Your task to perform on an android device: turn on priority inbox in the gmail app Image 0: 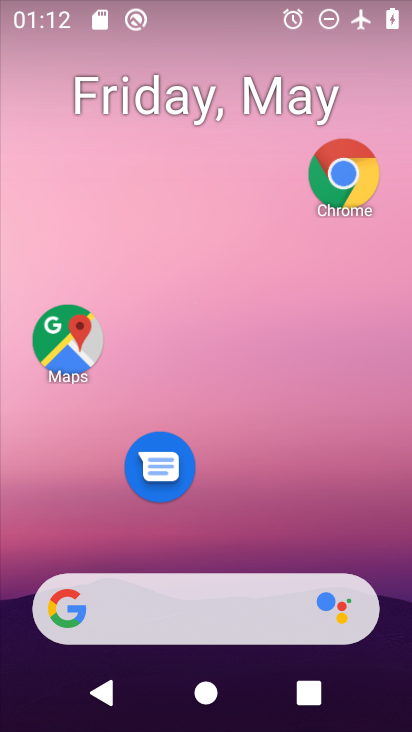
Step 0: drag from (251, 540) to (287, 266)
Your task to perform on an android device: turn on priority inbox in the gmail app Image 1: 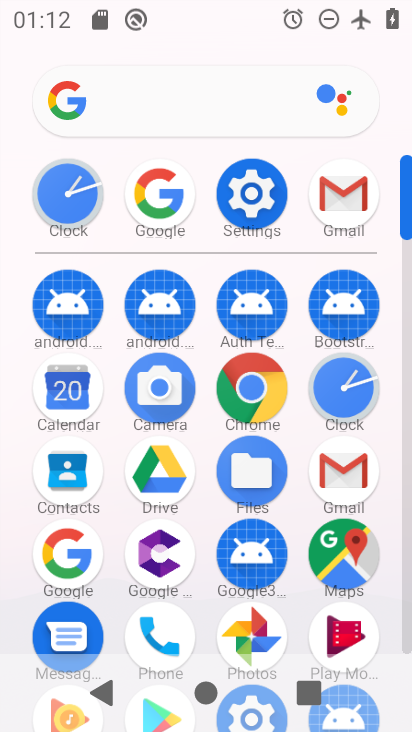
Step 1: click (337, 464)
Your task to perform on an android device: turn on priority inbox in the gmail app Image 2: 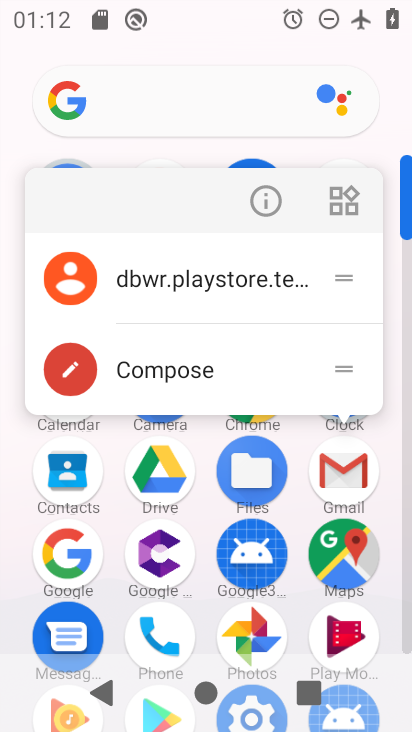
Step 2: click (337, 464)
Your task to perform on an android device: turn on priority inbox in the gmail app Image 3: 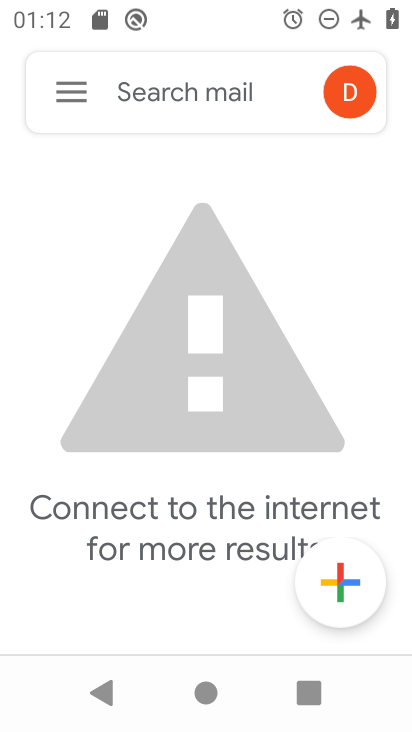
Step 3: click (65, 77)
Your task to perform on an android device: turn on priority inbox in the gmail app Image 4: 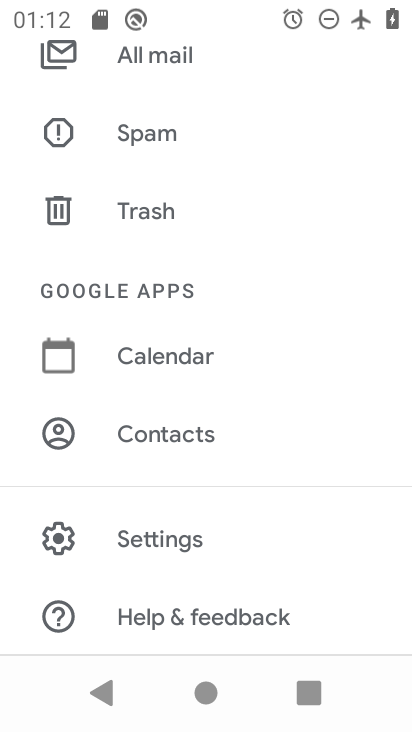
Step 4: click (166, 523)
Your task to perform on an android device: turn on priority inbox in the gmail app Image 5: 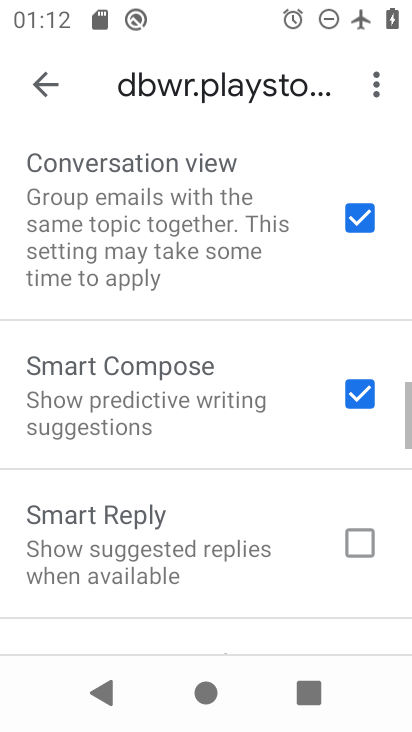
Step 5: drag from (145, 168) to (130, 518)
Your task to perform on an android device: turn on priority inbox in the gmail app Image 6: 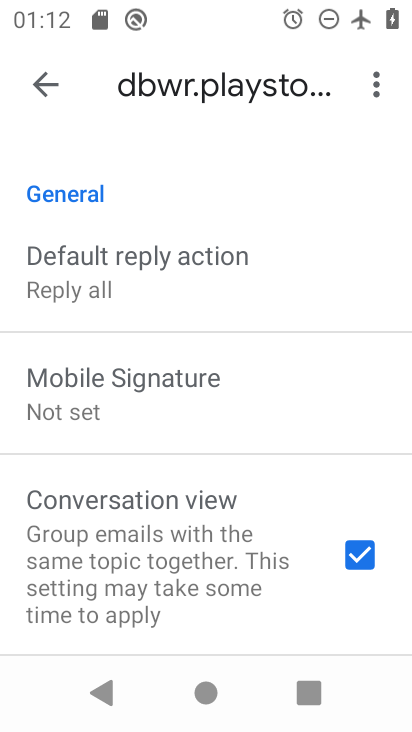
Step 6: click (203, 212)
Your task to perform on an android device: turn on priority inbox in the gmail app Image 7: 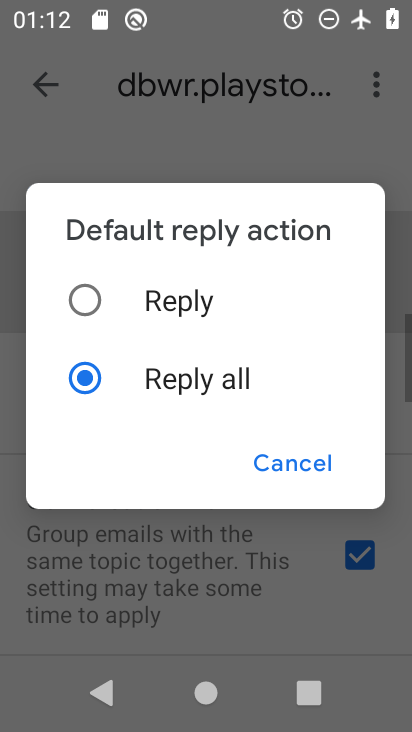
Step 7: drag from (203, 232) to (183, 432)
Your task to perform on an android device: turn on priority inbox in the gmail app Image 8: 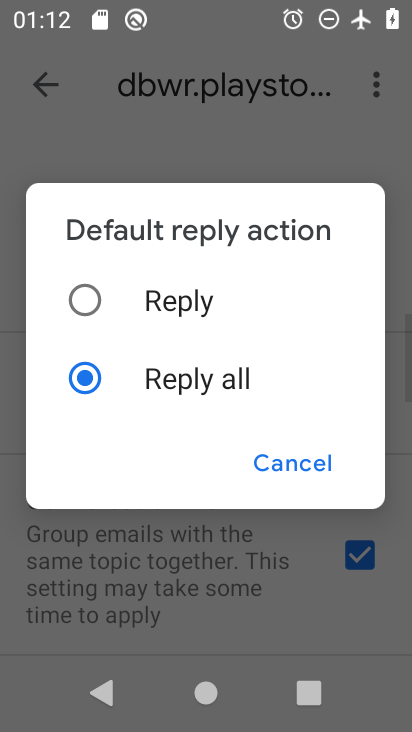
Step 8: click (270, 455)
Your task to perform on an android device: turn on priority inbox in the gmail app Image 9: 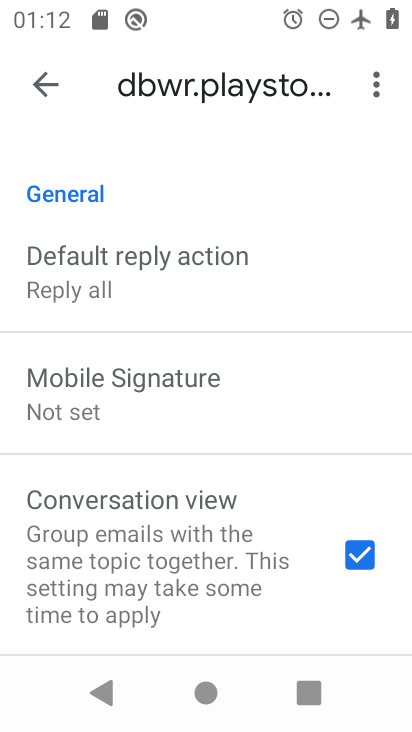
Step 9: drag from (226, 119) to (165, 486)
Your task to perform on an android device: turn on priority inbox in the gmail app Image 10: 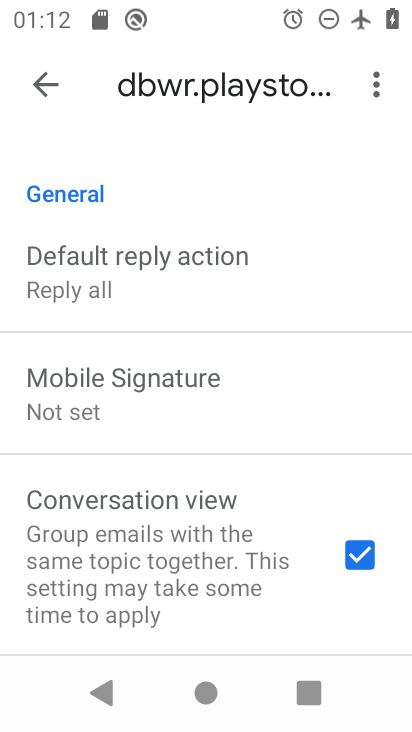
Step 10: drag from (131, 264) to (128, 456)
Your task to perform on an android device: turn on priority inbox in the gmail app Image 11: 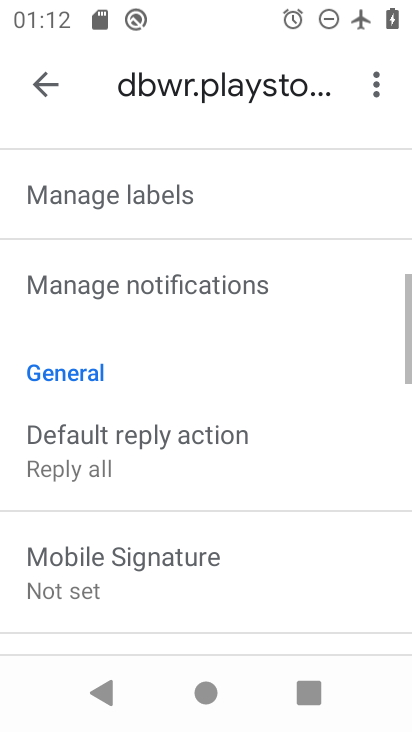
Step 11: drag from (135, 264) to (148, 421)
Your task to perform on an android device: turn on priority inbox in the gmail app Image 12: 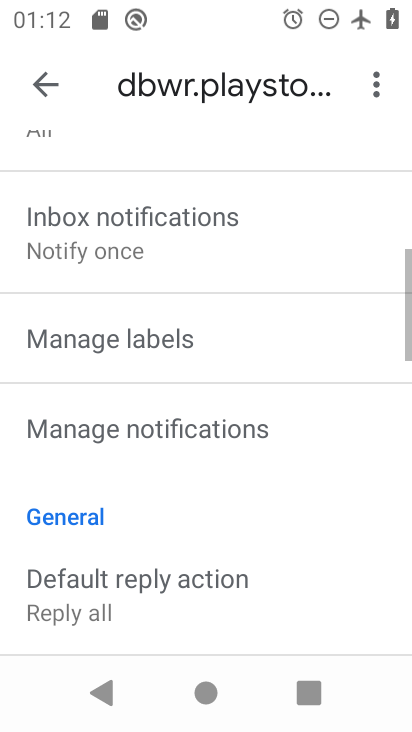
Step 12: drag from (135, 263) to (134, 428)
Your task to perform on an android device: turn on priority inbox in the gmail app Image 13: 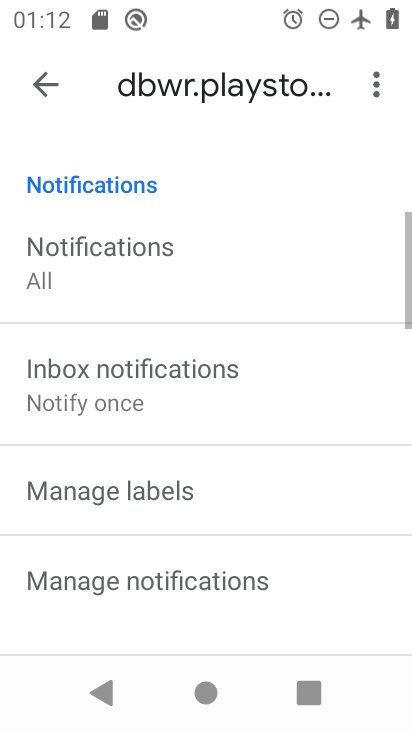
Step 13: drag from (142, 270) to (155, 444)
Your task to perform on an android device: turn on priority inbox in the gmail app Image 14: 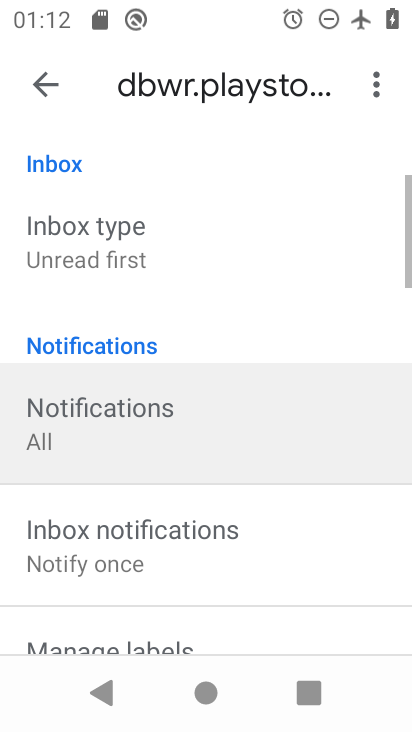
Step 14: drag from (168, 218) to (153, 379)
Your task to perform on an android device: turn on priority inbox in the gmail app Image 15: 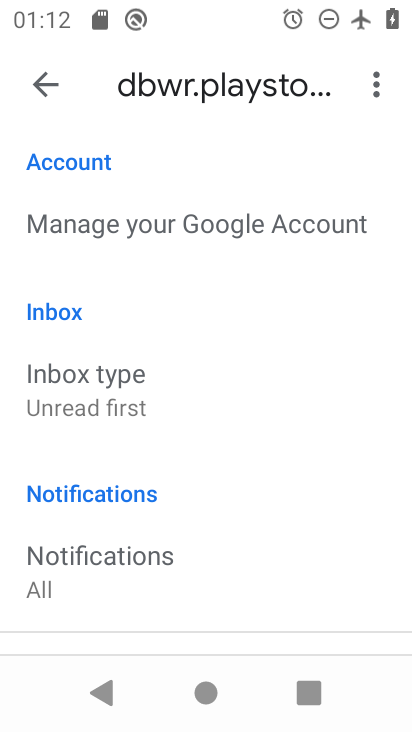
Step 15: click (122, 349)
Your task to perform on an android device: turn on priority inbox in the gmail app Image 16: 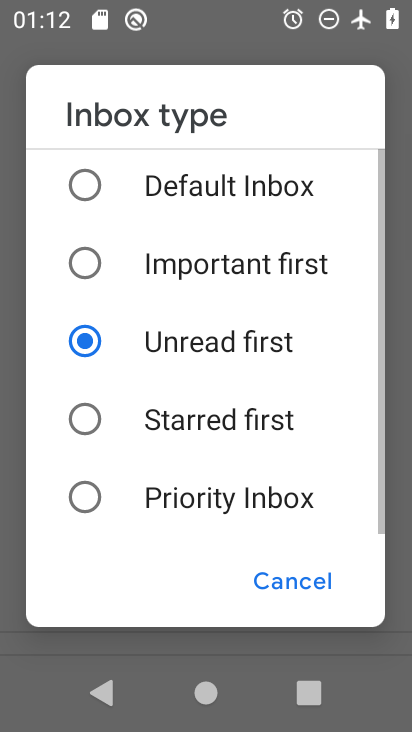
Step 16: click (150, 513)
Your task to perform on an android device: turn on priority inbox in the gmail app Image 17: 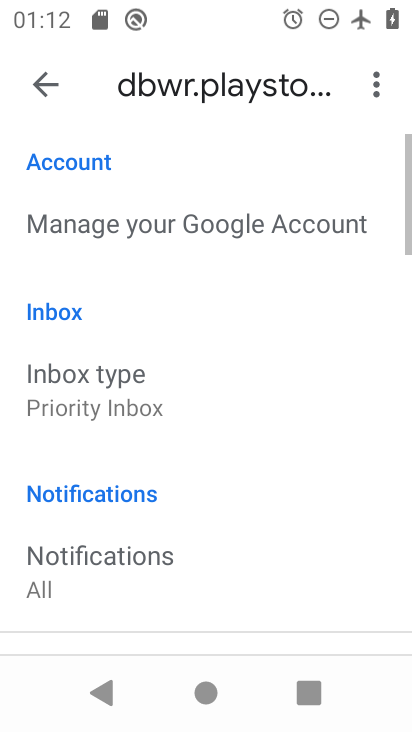
Step 17: task complete